Your task to perform on an android device: Open Google Chrome and open the bookmarks view Image 0: 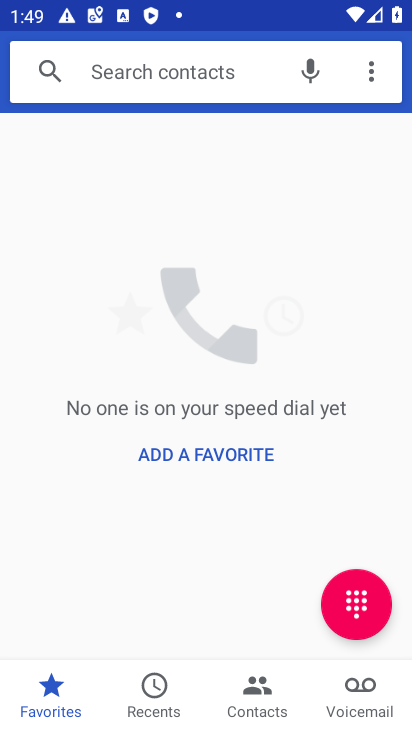
Step 0: press home button
Your task to perform on an android device: Open Google Chrome and open the bookmarks view Image 1: 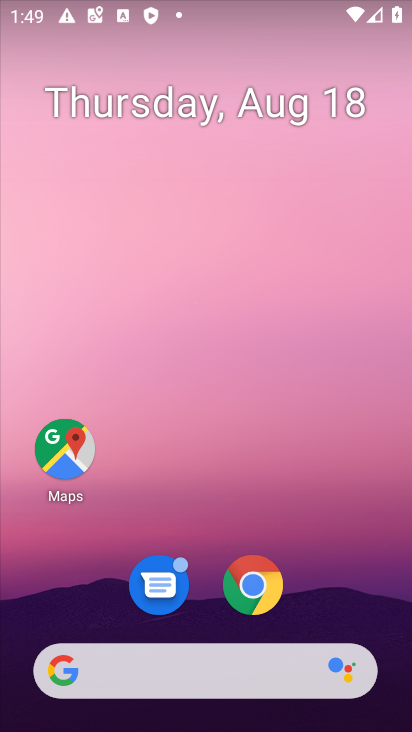
Step 1: click (259, 584)
Your task to perform on an android device: Open Google Chrome and open the bookmarks view Image 2: 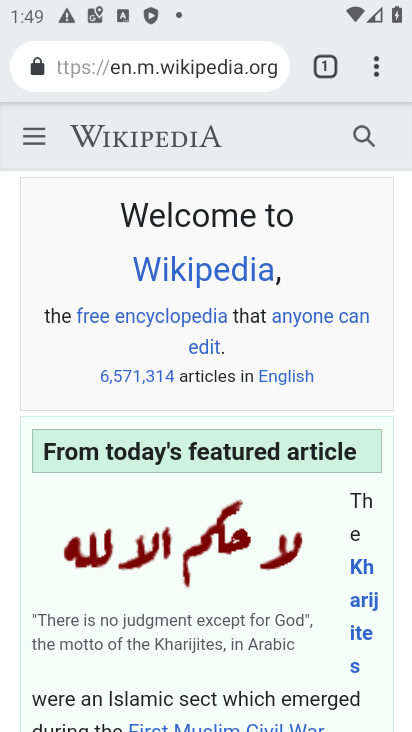
Step 2: click (375, 73)
Your task to perform on an android device: Open Google Chrome and open the bookmarks view Image 3: 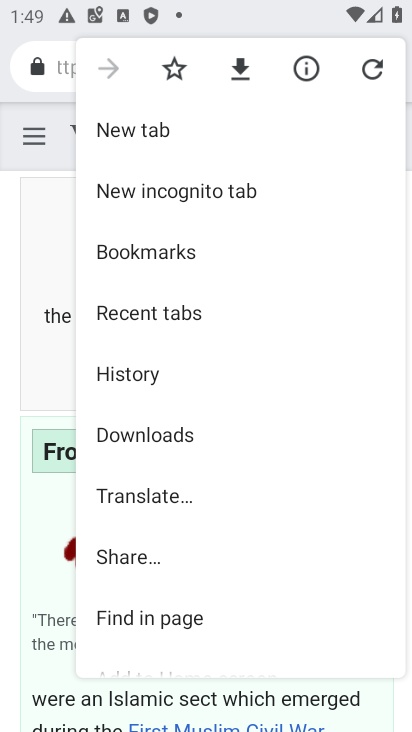
Step 3: click (211, 255)
Your task to perform on an android device: Open Google Chrome and open the bookmarks view Image 4: 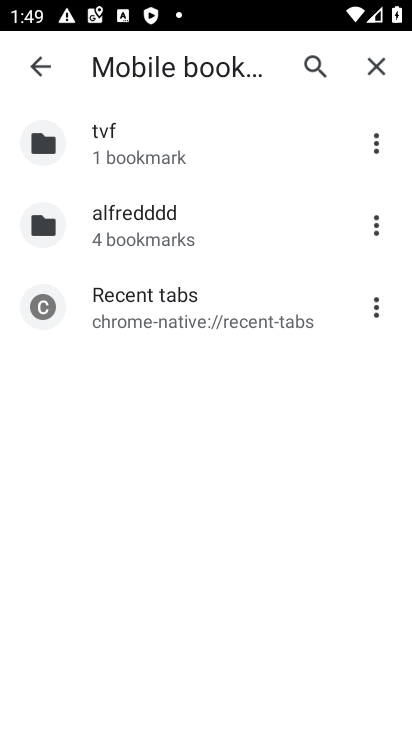
Step 4: click (174, 220)
Your task to perform on an android device: Open Google Chrome and open the bookmarks view Image 5: 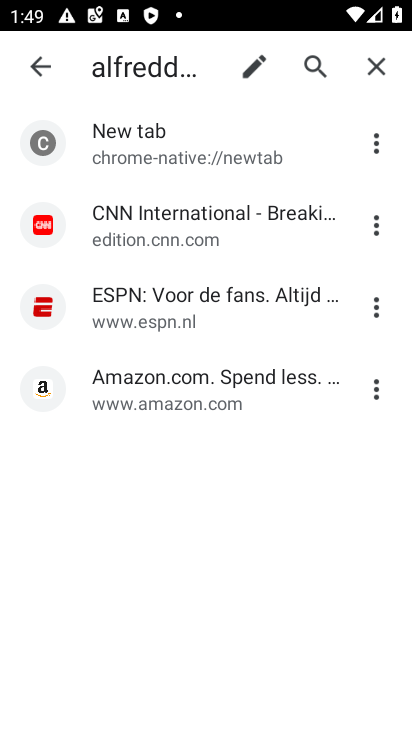
Step 5: task complete